Your task to perform on an android device: uninstall "Google Play Music" Image 0: 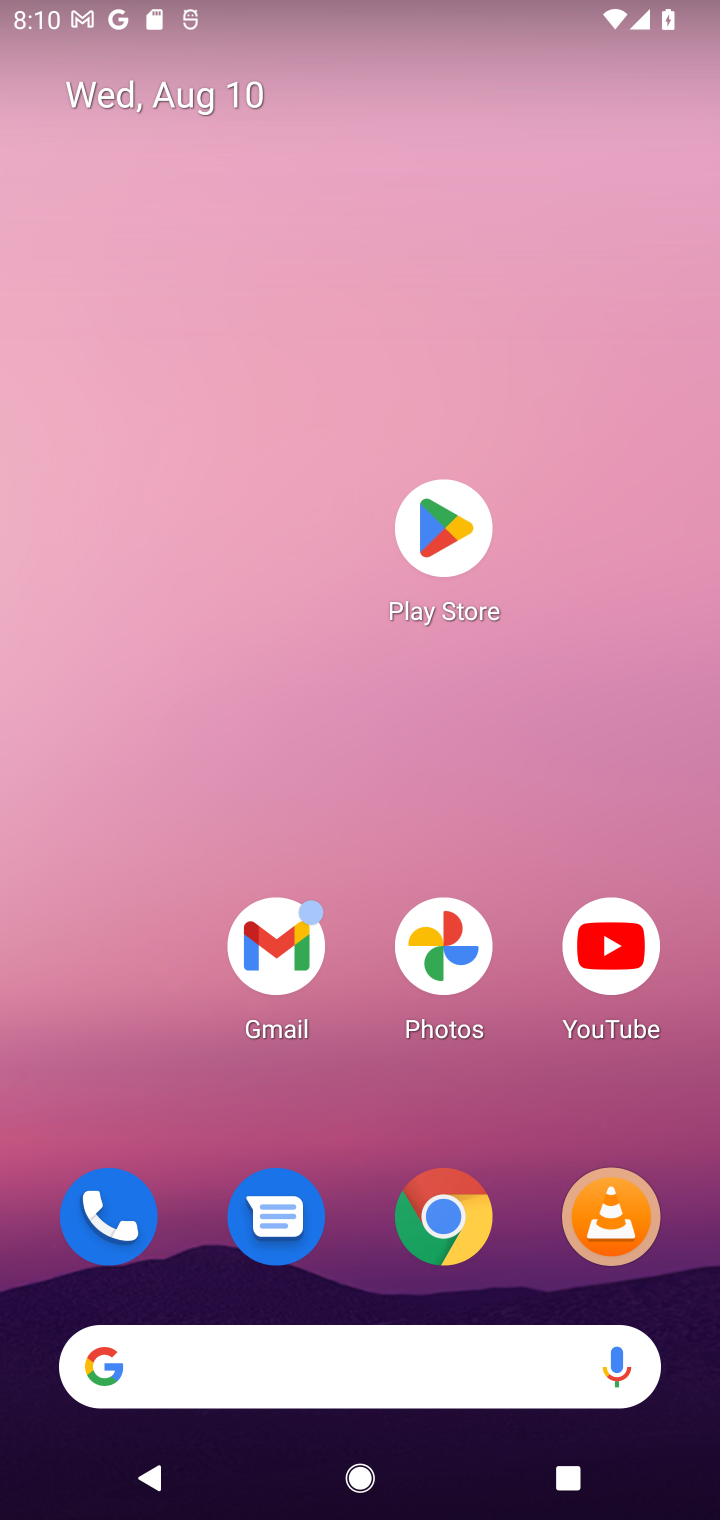
Step 0: press home button
Your task to perform on an android device: uninstall "Google Play Music" Image 1: 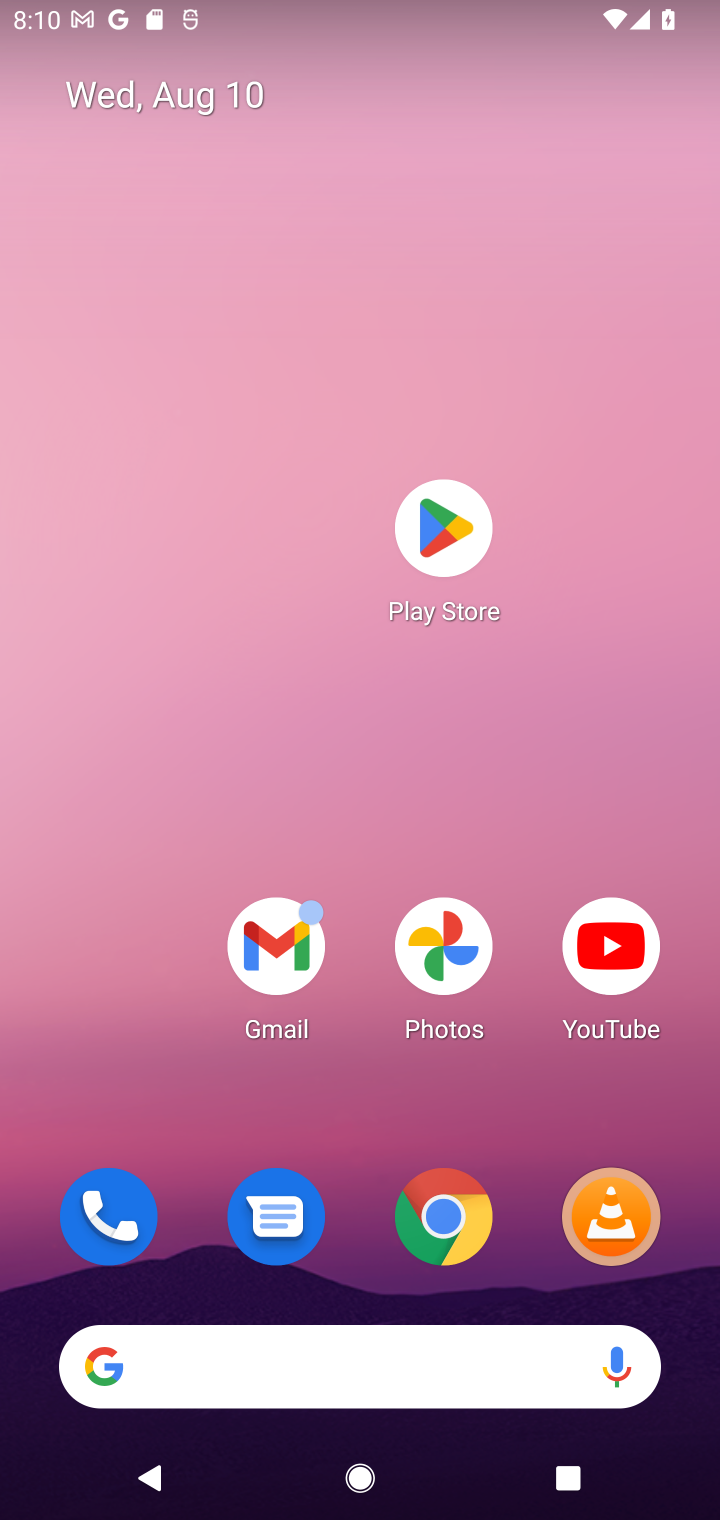
Step 1: click (447, 528)
Your task to perform on an android device: uninstall "Google Play Music" Image 2: 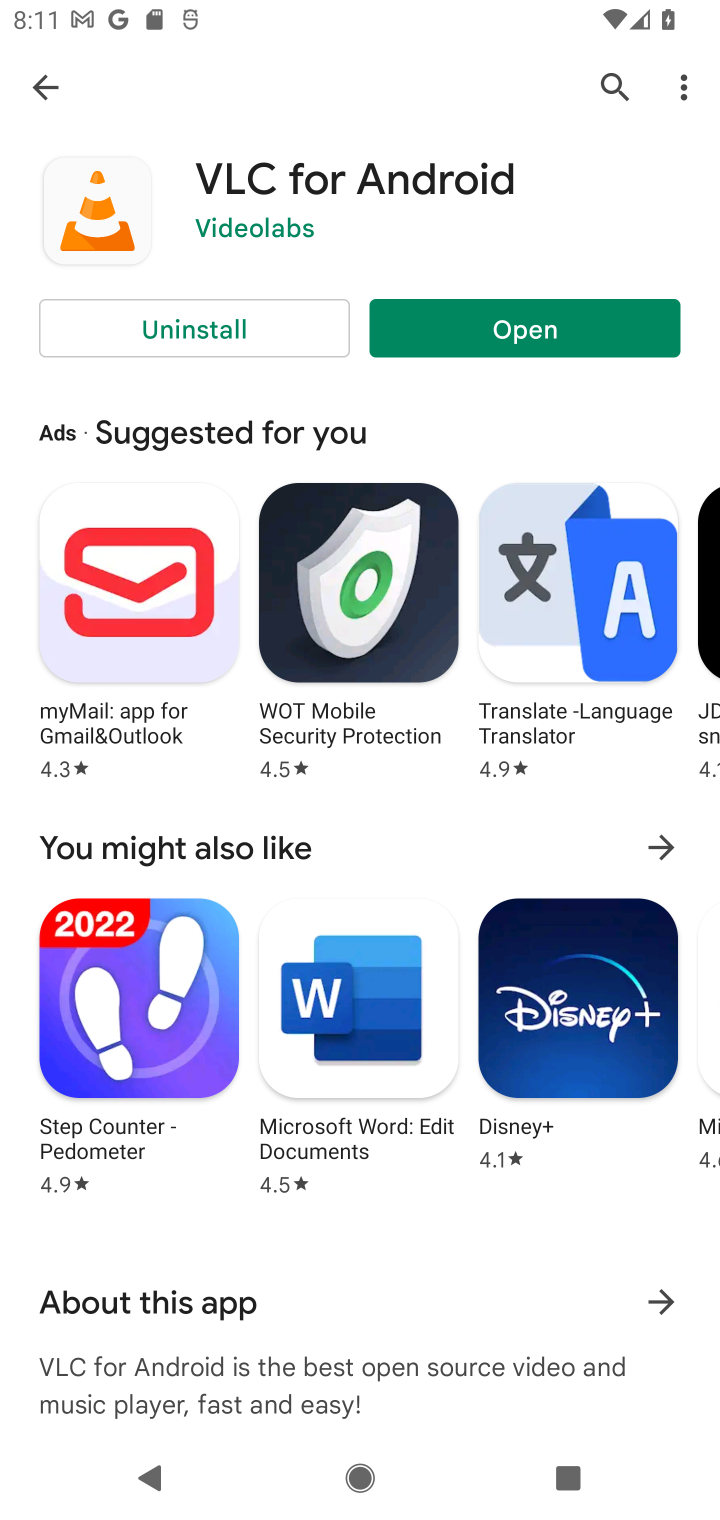
Step 2: click (611, 86)
Your task to perform on an android device: uninstall "Google Play Music" Image 3: 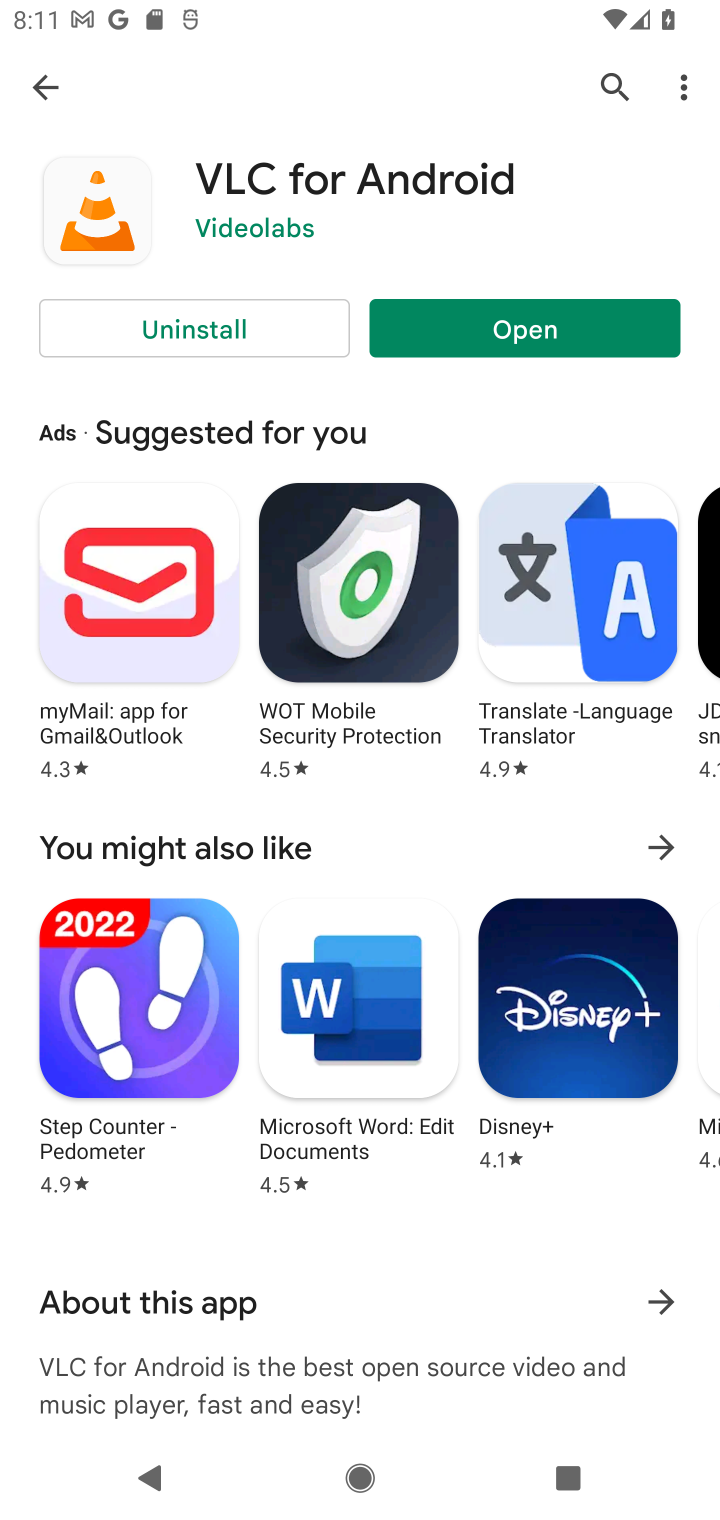
Step 3: click (611, 80)
Your task to perform on an android device: uninstall "Google Play Music" Image 4: 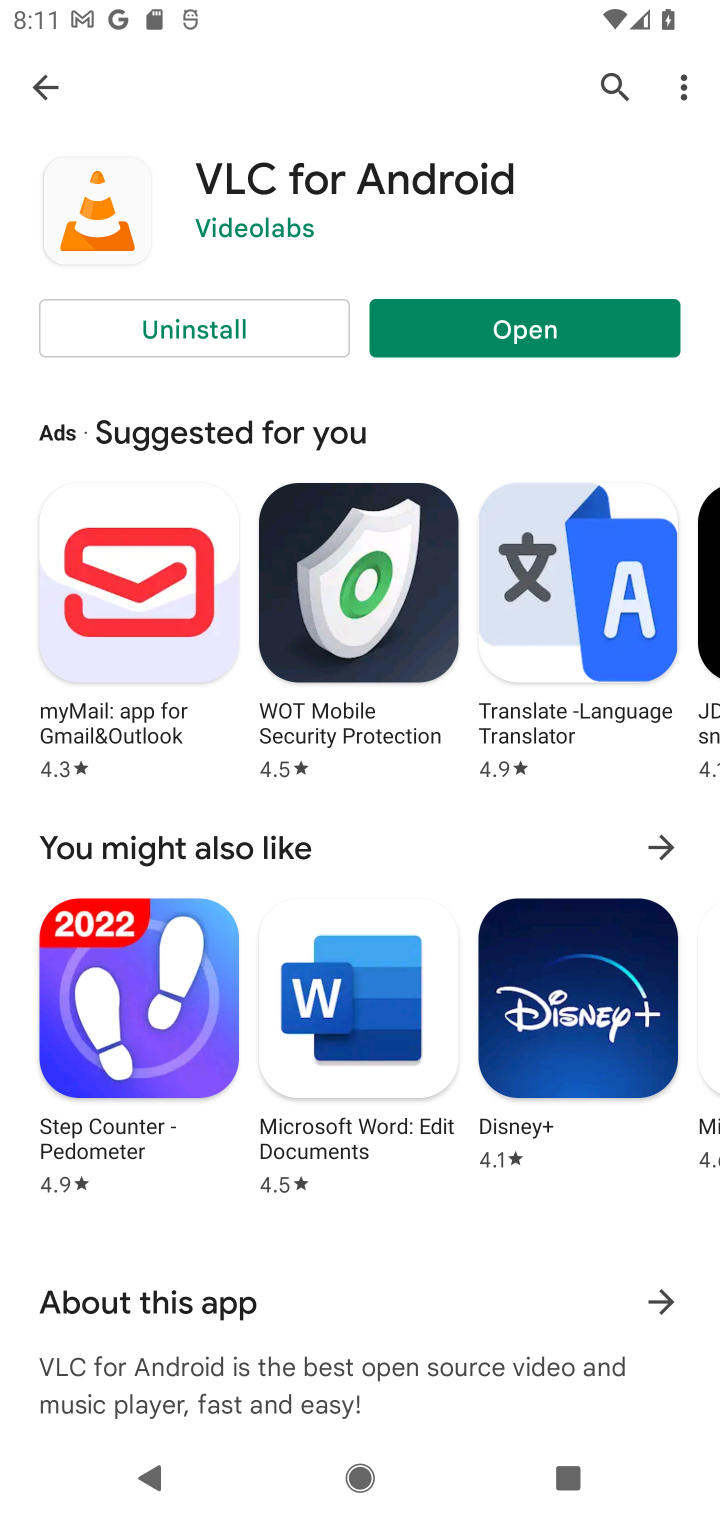
Step 4: click (611, 80)
Your task to perform on an android device: uninstall "Google Play Music" Image 5: 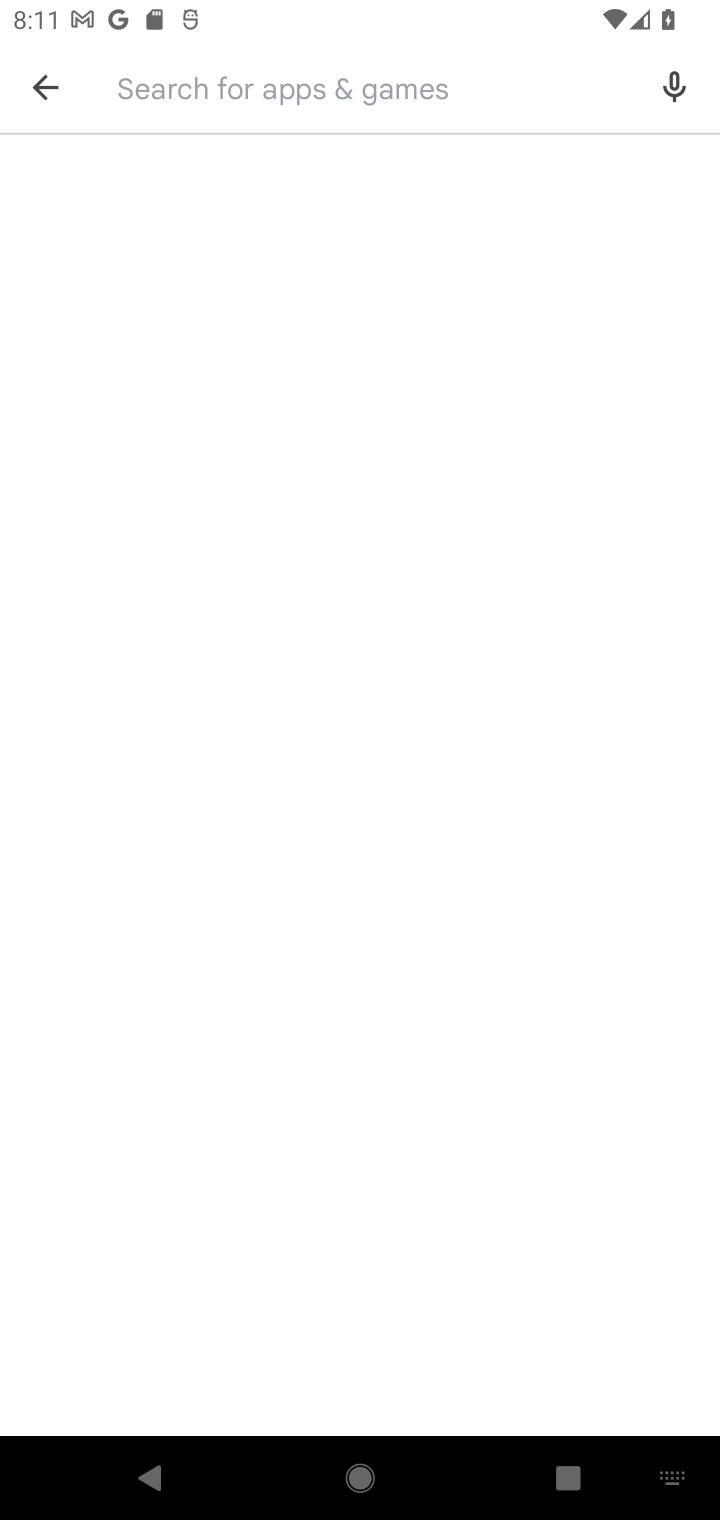
Step 5: type "Google Play Music"
Your task to perform on an android device: uninstall "Google Play Music" Image 6: 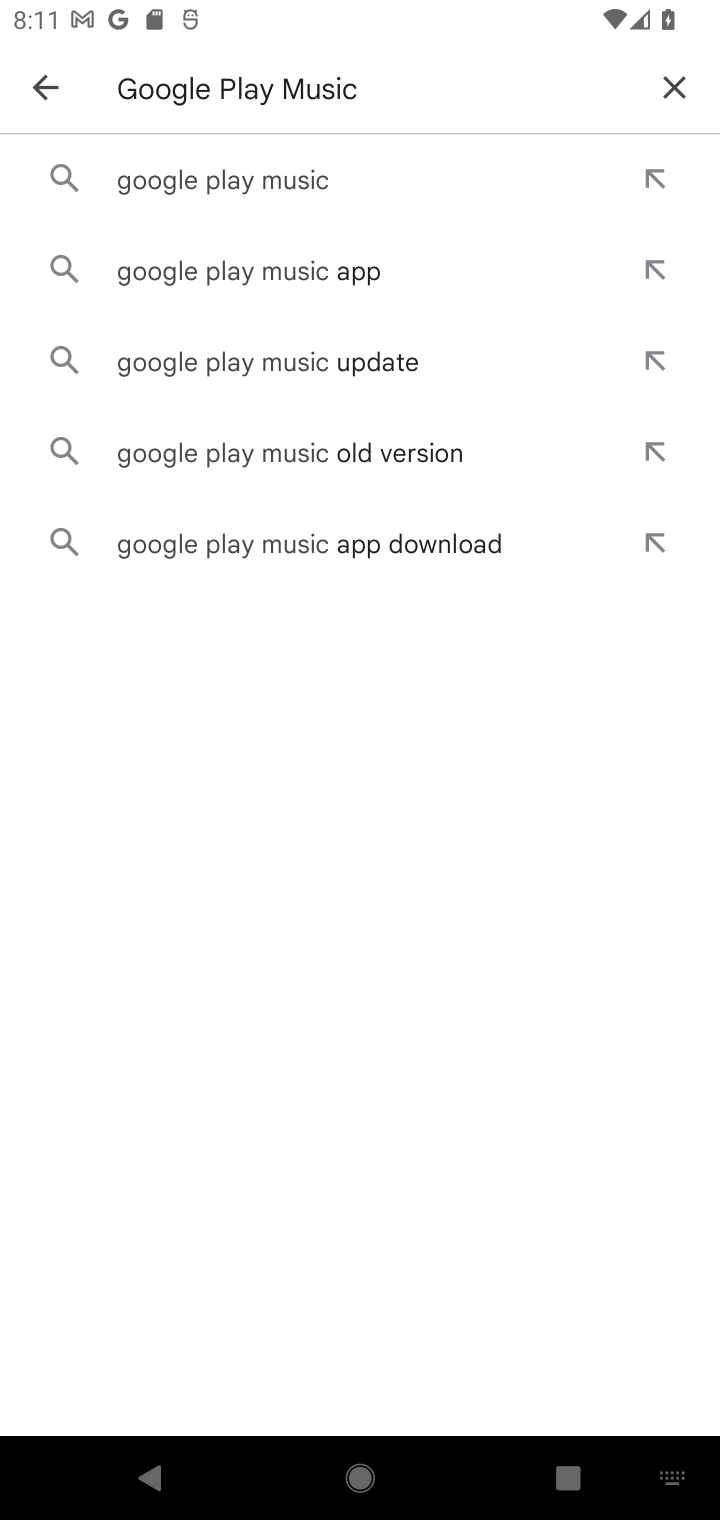
Step 6: click (255, 178)
Your task to perform on an android device: uninstall "Google Play Music" Image 7: 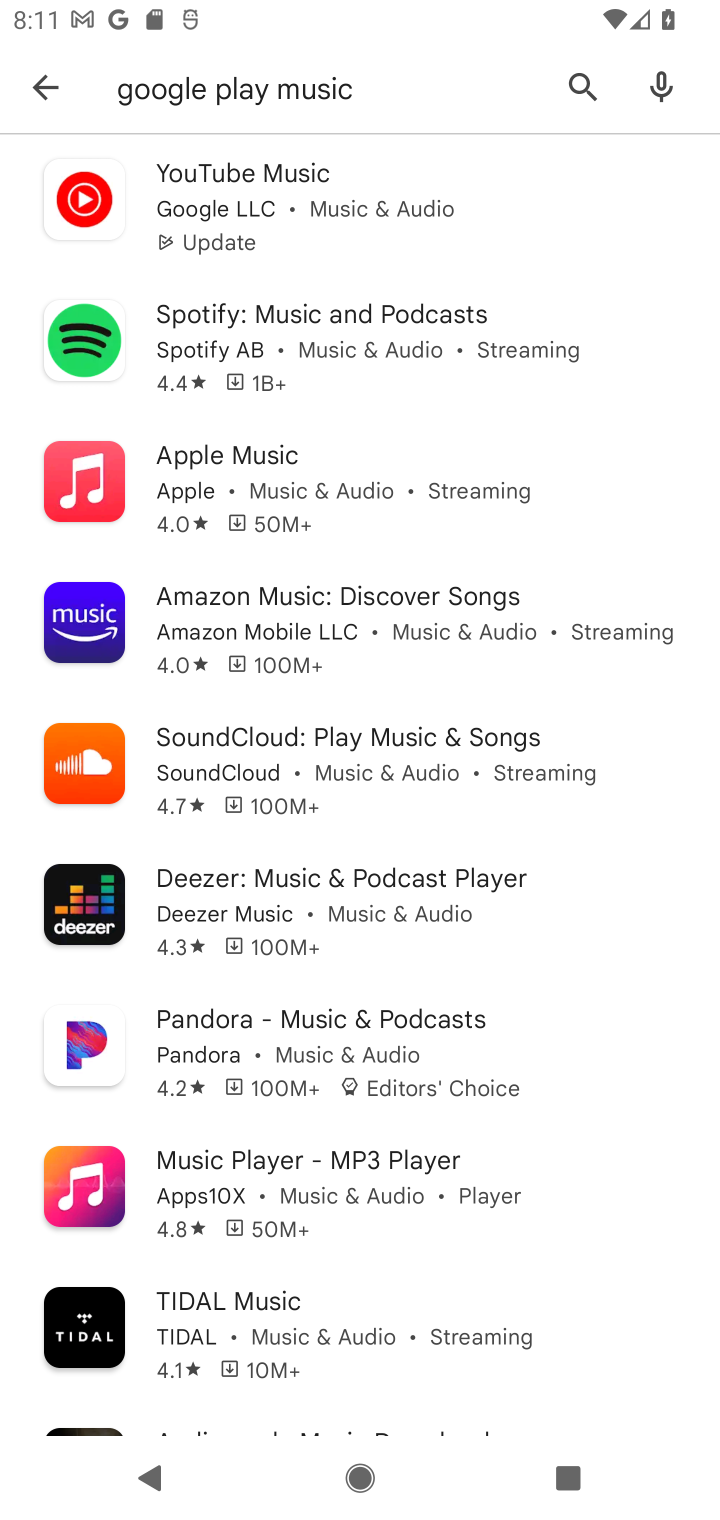
Step 7: task complete